Your task to perform on an android device: add a contact Image 0: 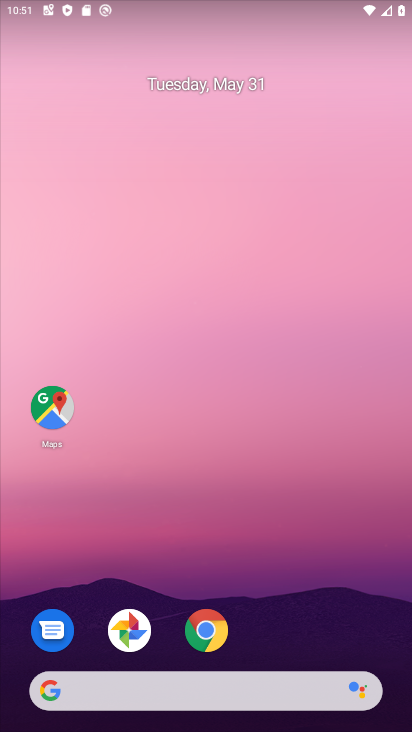
Step 0: drag from (233, 542) to (219, 378)
Your task to perform on an android device: add a contact Image 1: 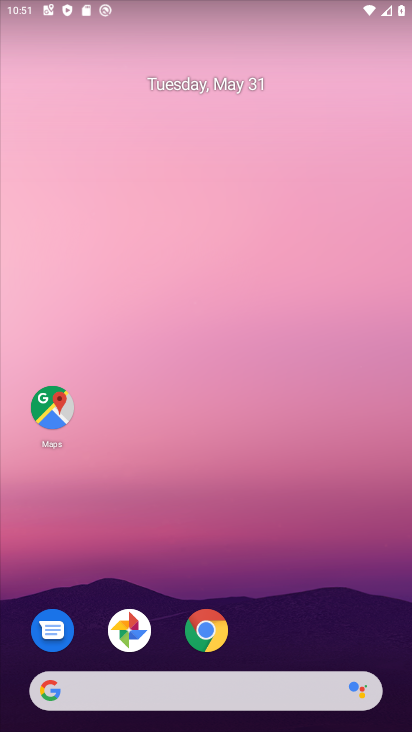
Step 1: drag from (251, 599) to (258, 270)
Your task to perform on an android device: add a contact Image 2: 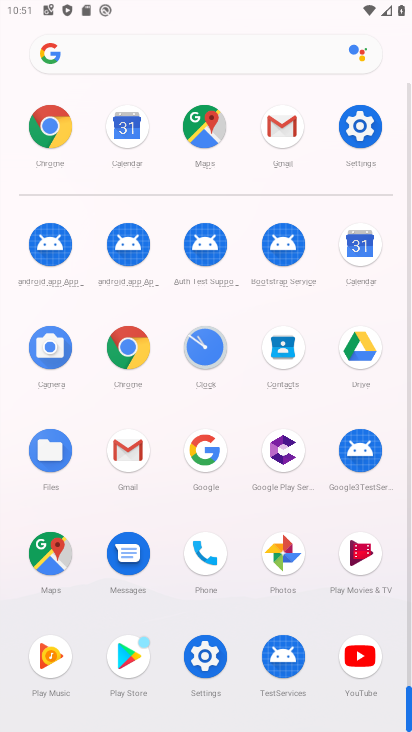
Step 2: click (202, 544)
Your task to perform on an android device: add a contact Image 3: 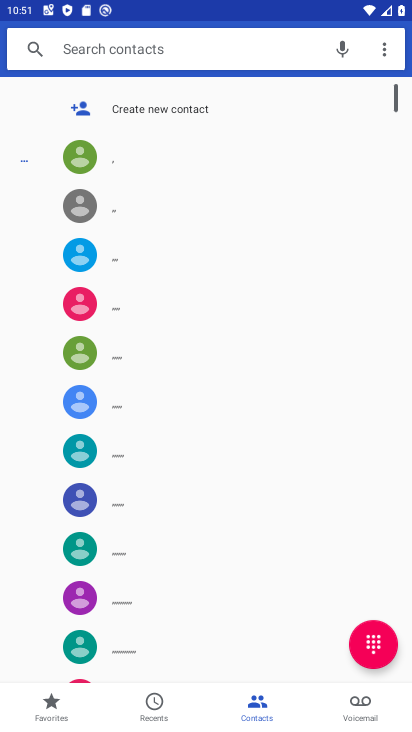
Step 3: click (170, 102)
Your task to perform on an android device: add a contact Image 4: 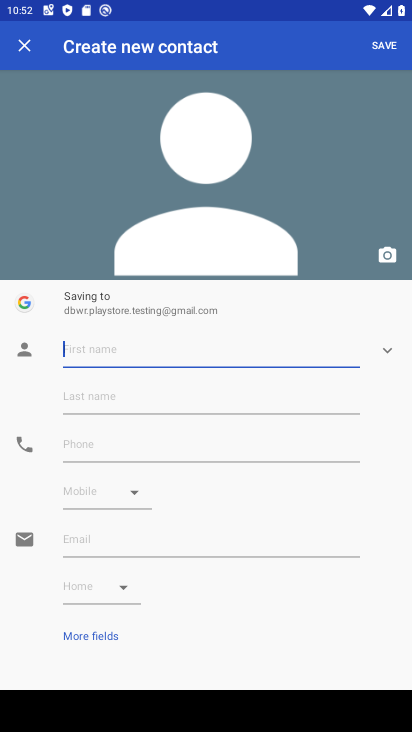
Step 4: type "sdfghjk"
Your task to perform on an android device: add a contact Image 5: 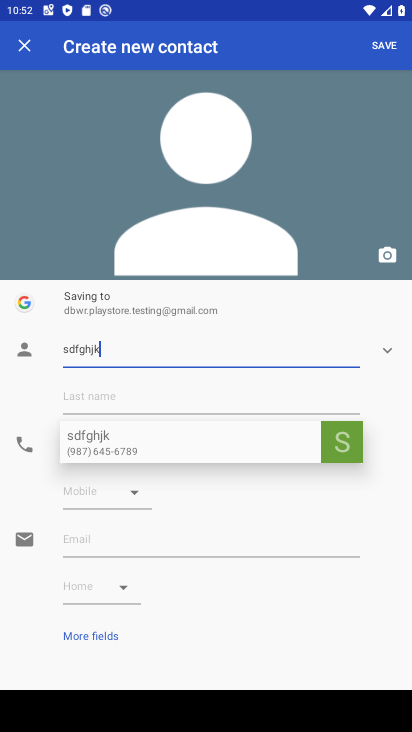
Step 5: click (151, 399)
Your task to perform on an android device: add a contact Image 6: 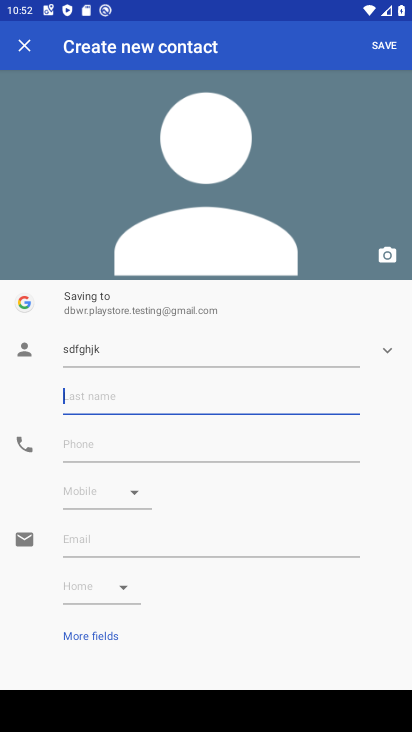
Step 6: type "56789"
Your task to perform on an android device: add a contact Image 7: 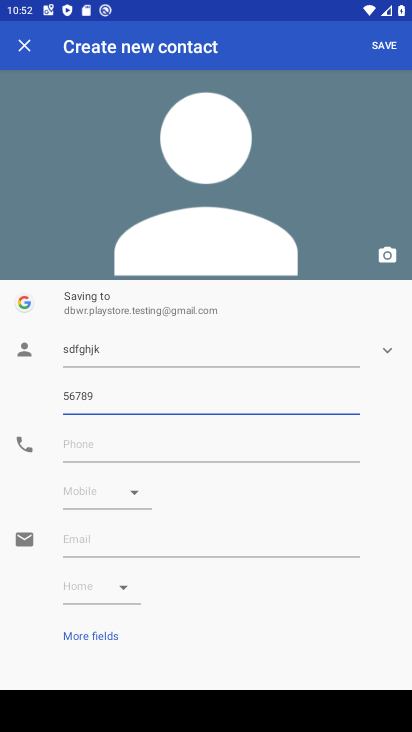
Step 7: click (383, 50)
Your task to perform on an android device: add a contact Image 8: 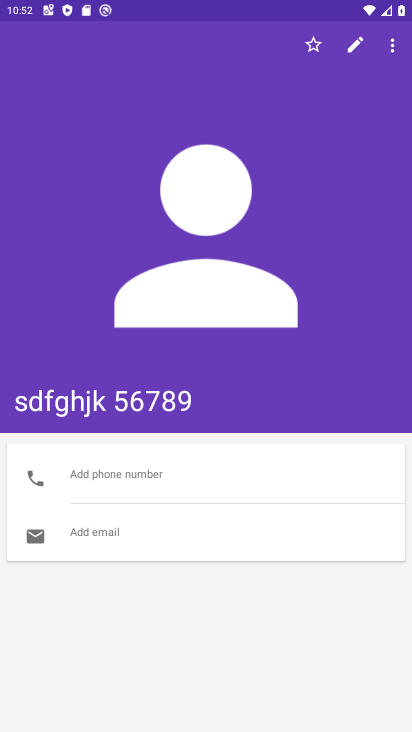
Step 8: task complete